Your task to perform on an android device: change notification settings in the gmail app Image 0: 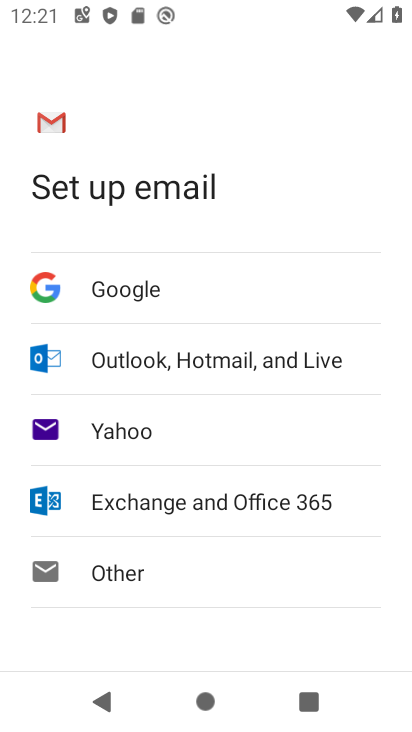
Step 0: press home button
Your task to perform on an android device: change notification settings in the gmail app Image 1: 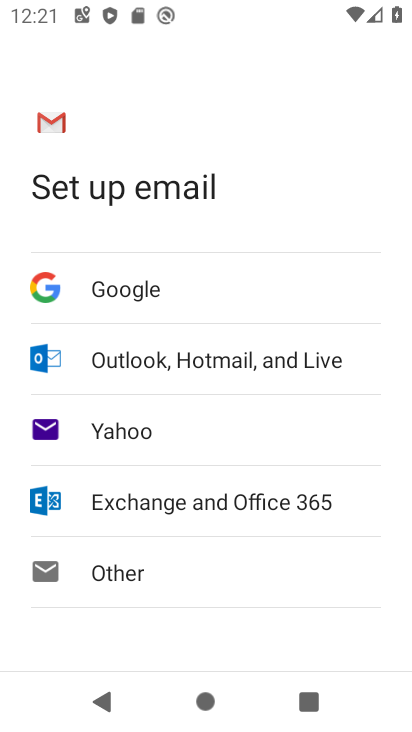
Step 1: press home button
Your task to perform on an android device: change notification settings in the gmail app Image 2: 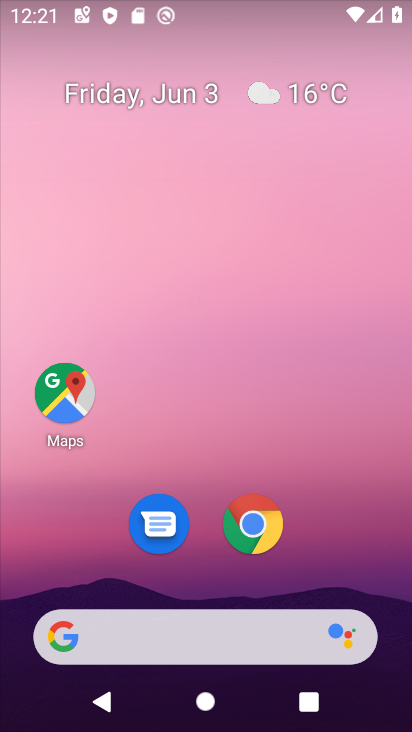
Step 2: drag from (278, 448) to (277, 19)
Your task to perform on an android device: change notification settings in the gmail app Image 3: 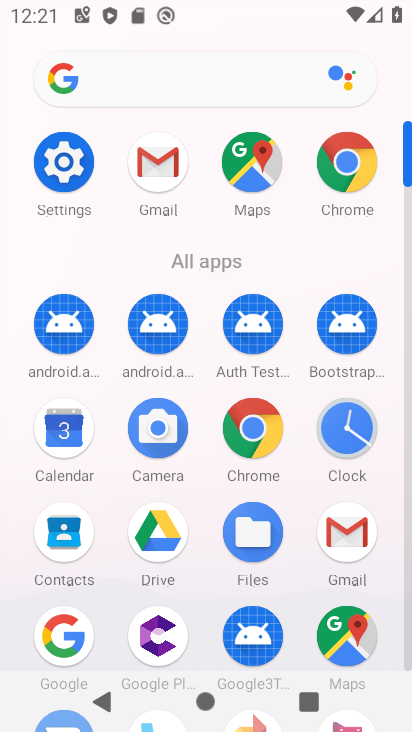
Step 3: click (166, 168)
Your task to perform on an android device: change notification settings in the gmail app Image 4: 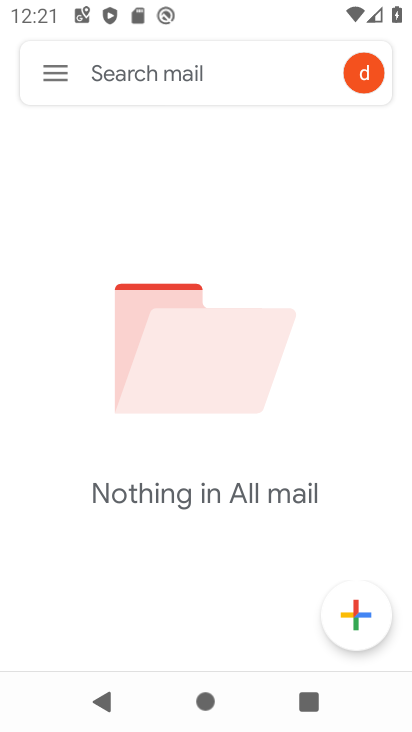
Step 4: click (48, 59)
Your task to perform on an android device: change notification settings in the gmail app Image 5: 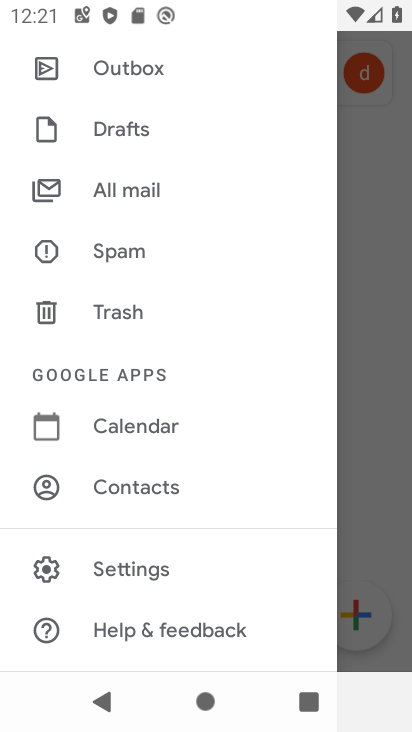
Step 5: click (161, 566)
Your task to perform on an android device: change notification settings in the gmail app Image 6: 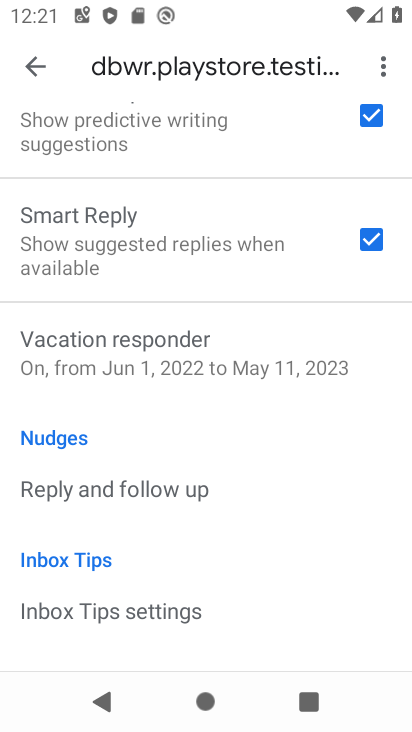
Step 6: drag from (200, 135) to (179, 578)
Your task to perform on an android device: change notification settings in the gmail app Image 7: 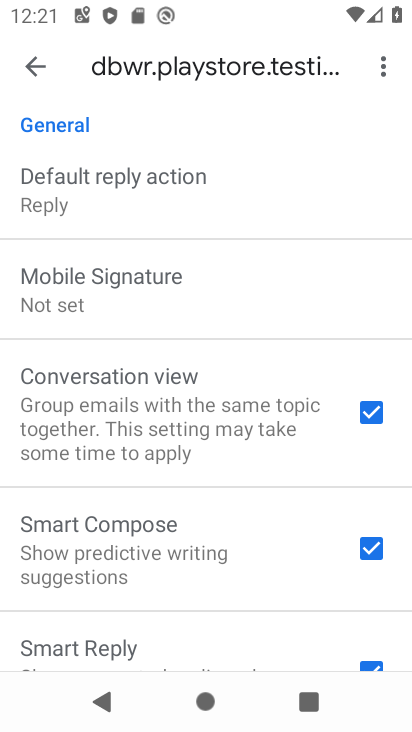
Step 7: drag from (192, 196) to (195, 584)
Your task to perform on an android device: change notification settings in the gmail app Image 8: 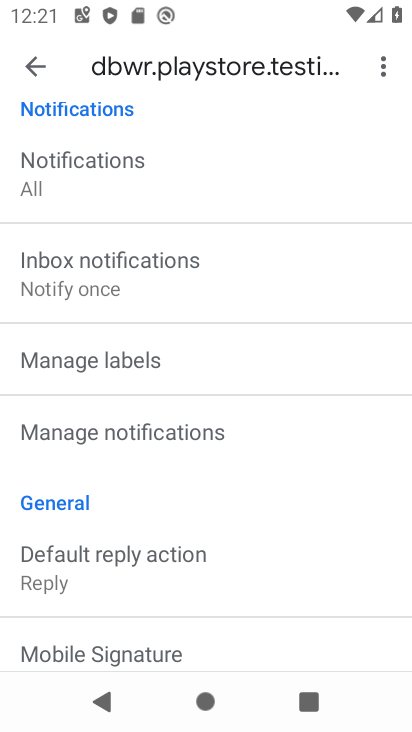
Step 8: click (190, 426)
Your task to perform on an android device: change notification settings in the gmail app Image 9: 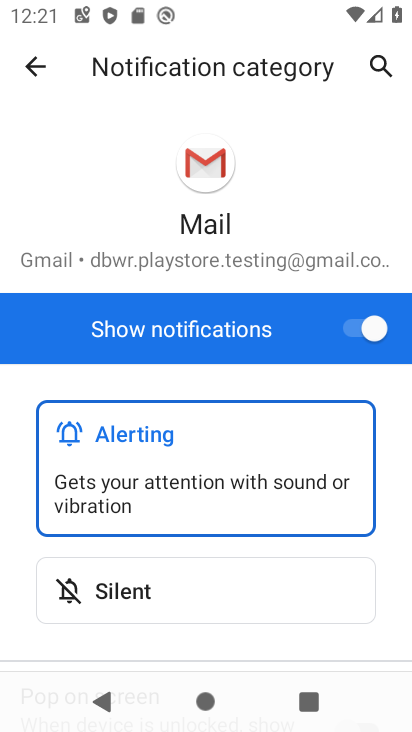
Step 9: click (361, 329)
Your task to perform on an android device: change notification settings in the gmail app Image 10: 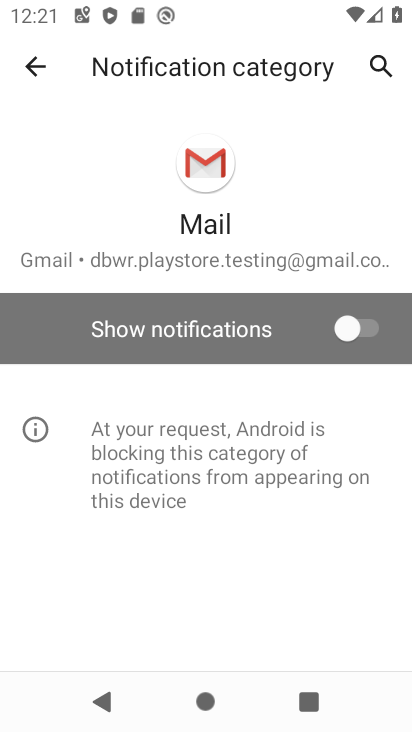
Step 10: task complete